Your task to perform on an android device: Open settings on Google Maps Image 0: 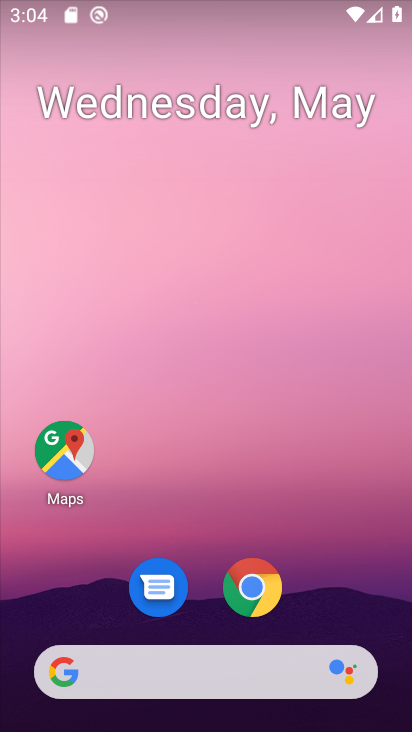
Step 0: drag from (185, 636) to (338, 175)
Your task to perform on an android device: Open settings on Google Maps Image 1: 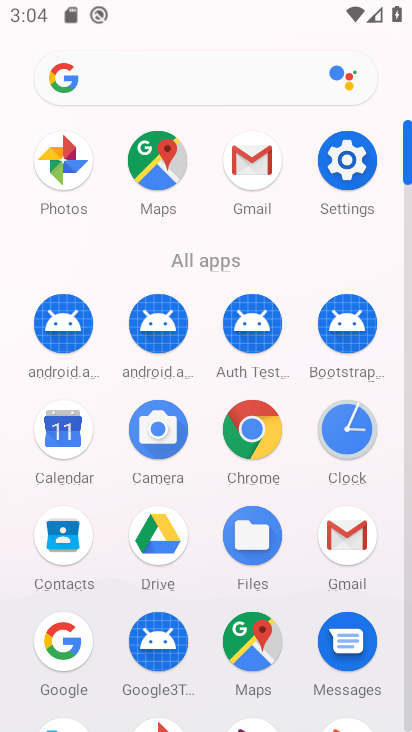
Step 1: click (266, 644)
Your task to perform on an android device: Open settings on Google Maps Image 2: 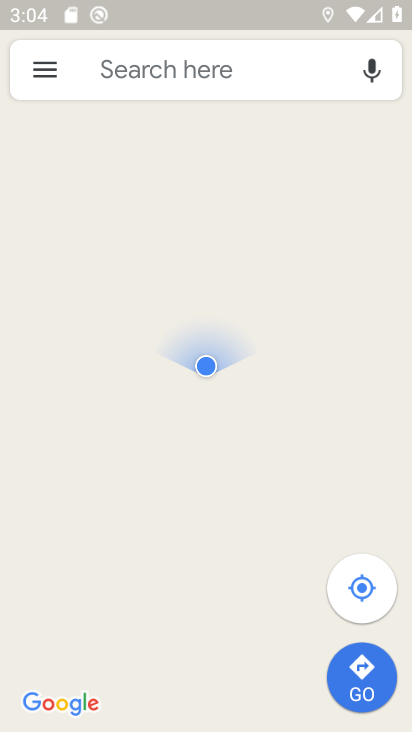
Step 2: click (63, 76)
Your task to perform on an android device: Open settings on Google Maps Image 3: 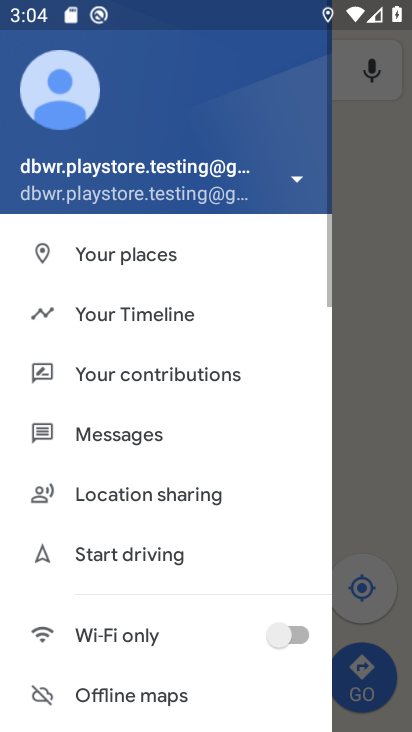
Step 3: drag from (111, 657) to (255, 188)
Your task to perform on an android device: Open settings on Google Maps Image 4: 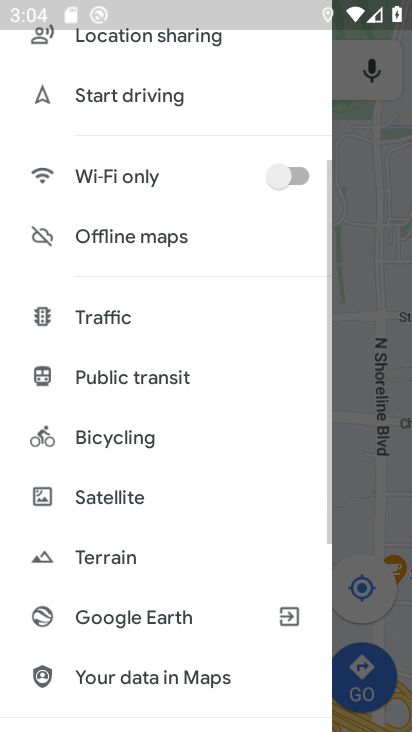
Step 4: drag from (139, 674) to (302, 395)
Your task to perform on an android device: Open settings on Google Maps Image 5: 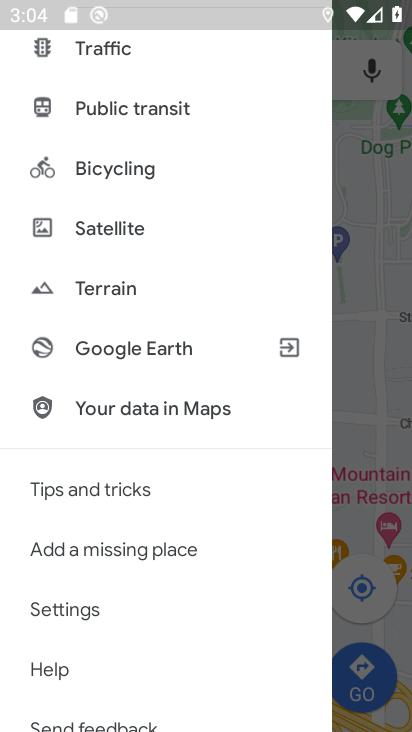
Step 5: click (132, 617)
Your task to perform on an android device: Open settings on Google Maps Image 6: 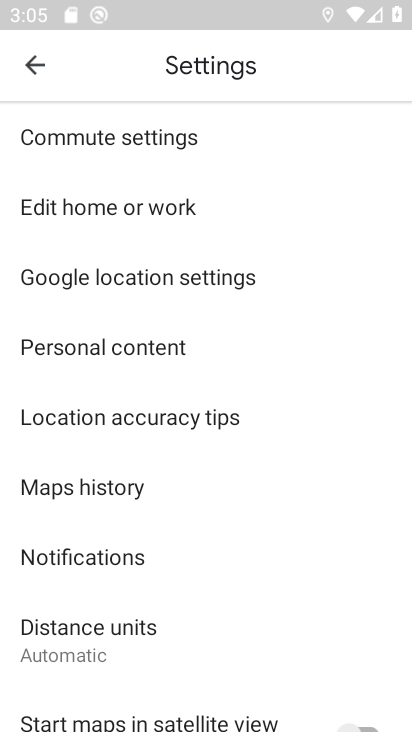
Step 6: task complete